Your task to perform on an android device: Open calendar and show me the second week of next month Image 0: 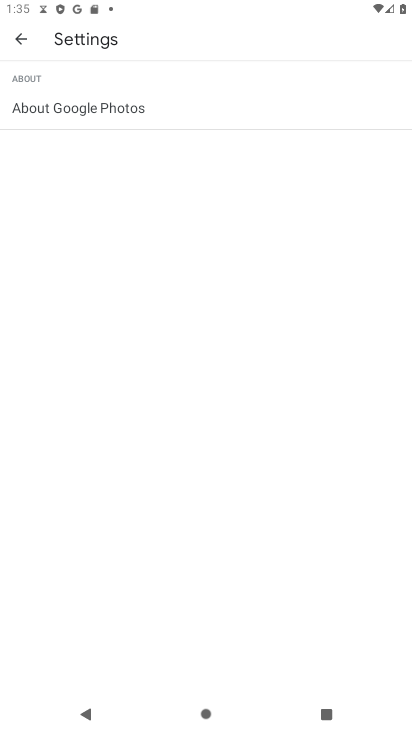
Step 0: press home button
Your task to perform on an android device: Open calendar and show me the second week of next month Image 1: 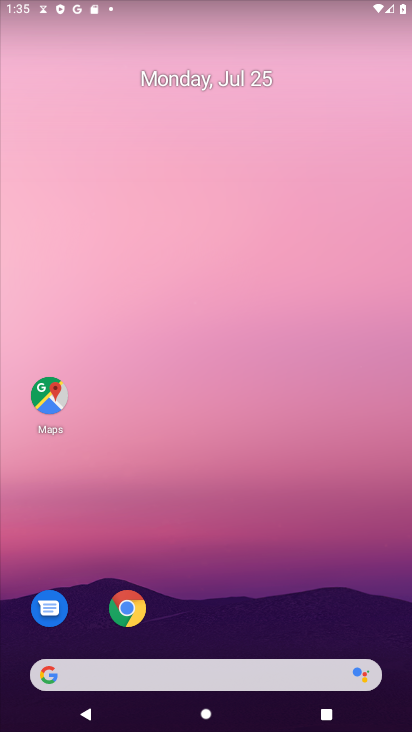
Step 1: drag from (169, 675) to (306, 106)
Your task to perform on an android device: Open calendar and show me the second week of next month Image 2: 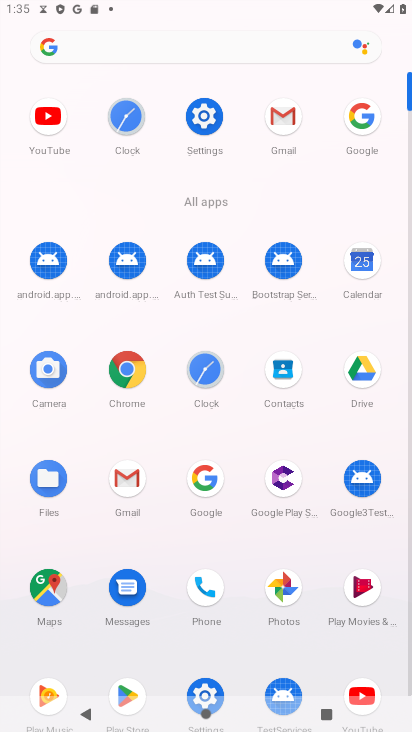
Step 2: click (361, 262)
Your task to perform on an android device: Open calendar and show me the second week of next month Image 3: 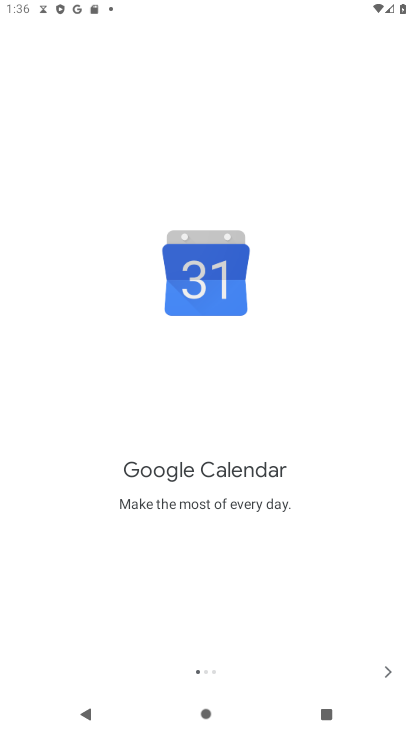
Step 3: click (389, 671)
Your task to perform on an android device: Open calendar and show me the second week of next month Image 4: 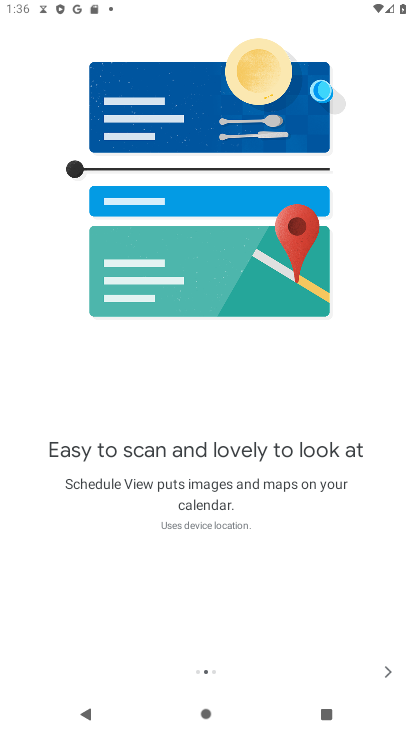
Step 4: click (389, 671)
Your task to perform on an android device: Open calendar and show me the second week of next month Image 5: 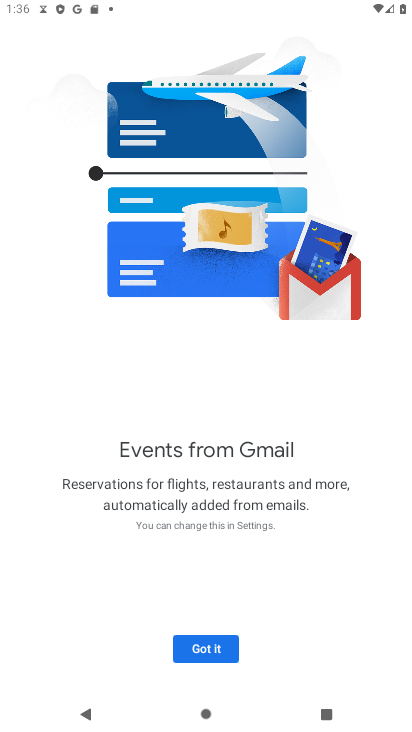
Step 5: click (207, 653)
Your task to perform on an android device: Open calendar and show me the second week of next month Image 6: 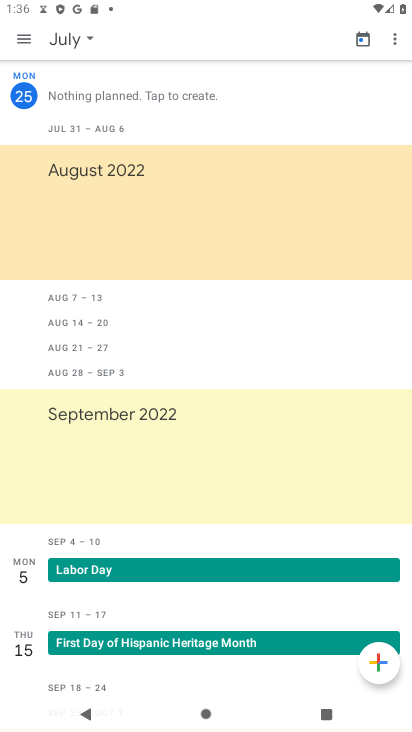
Step 6: click (88, 39)
Your task to perform on an android device: Open calendar and show me the second week of next month Image 7: 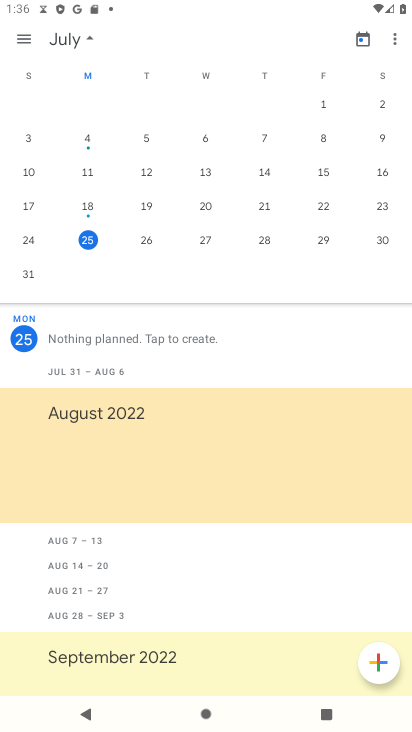
Step 7: drag from (360, 209) to (9, 214)
Your task to perform on an android device: Open calendar and show me the second week of next month Image 8: 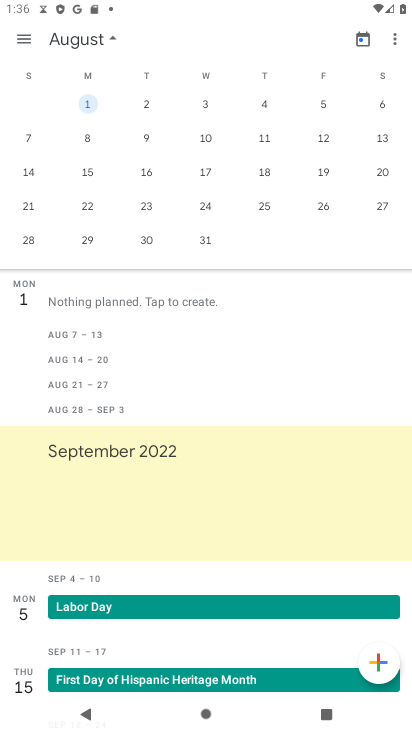
Step 8: click (82, 141)
Your task to perform on an android device: Open calendar and show me the second week of next month Image 9: 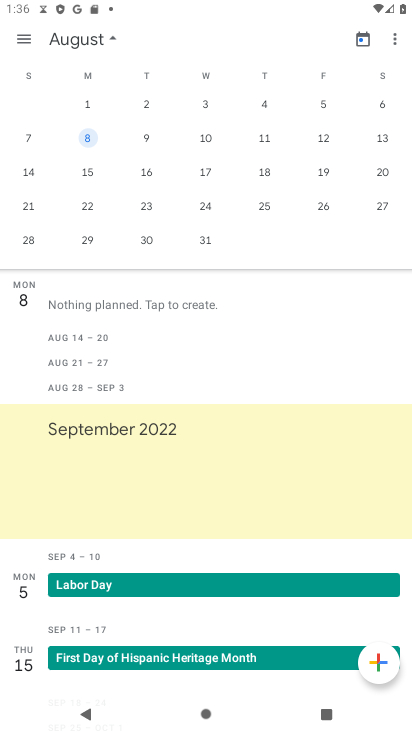
Step 9: click (20, 45)
Your task to perform on an android device: Open calendar and show me the second week of next month Image 10: 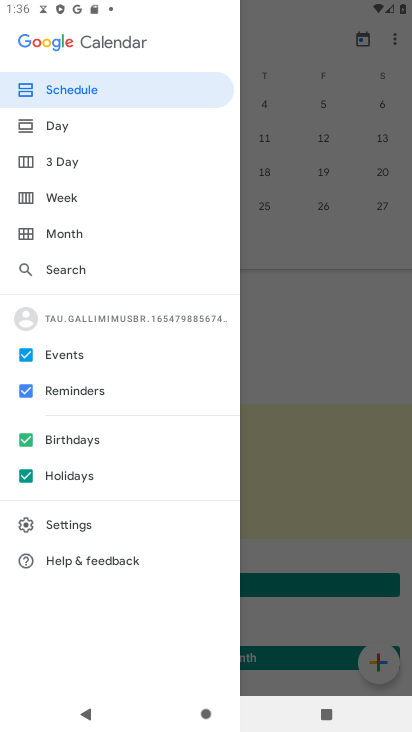
Step 10: click (65, 203)
Your task to perform on an android device: Open calendar and show me the second week of next month Image 11: 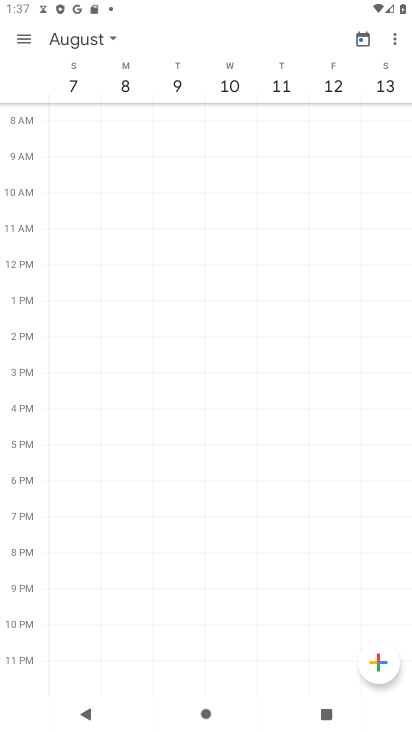
Step 11: task complete